Your task to perform on an android device: Open Youtube and go to the subscriptions tab Image 0: 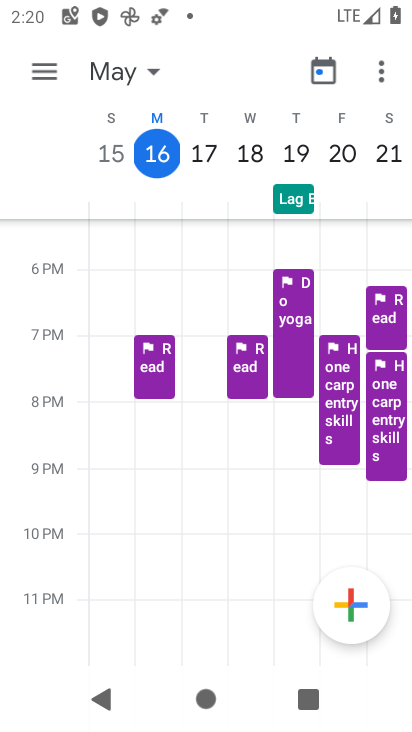
Step 0: press home button
Your task to perform on an android device: Open Youtube and go to the subscriptions tab Image 1: 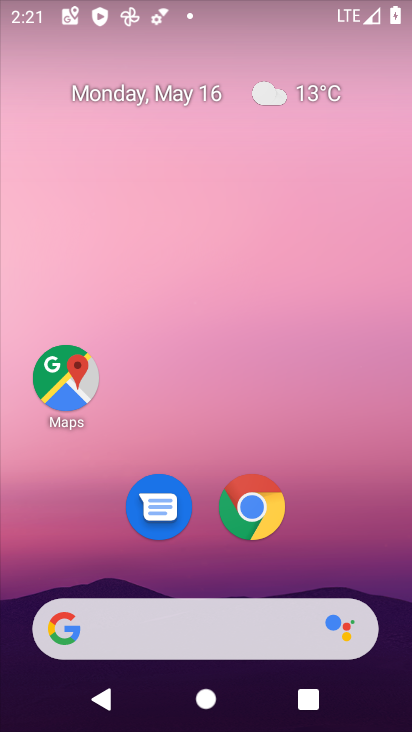
Step 1: drag from (265, 564) to (208, 97)
Your task to perform on an android device: Open Youtube and go to the subscriptions tab Image 2: 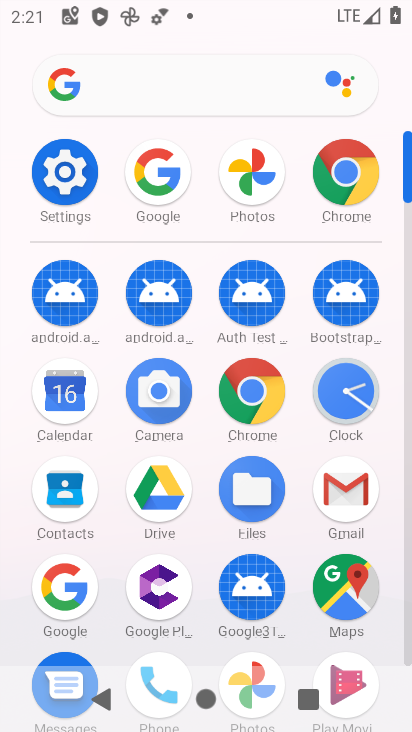
Step 2: drag from (204, 629) to (215, 263)
Your task to perform on an android device: Open Youtube and go to the subscriptions tab Image 3: 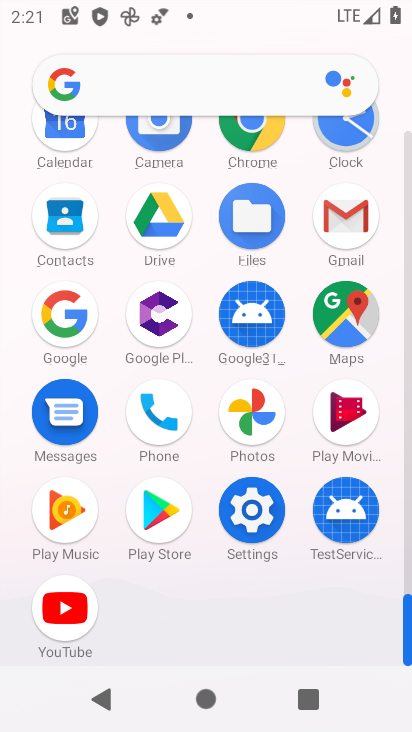
Step 3: click (79, 607)
Your task to perform on an android device: Open Youtube and go to the subscriptions tab Image 4: 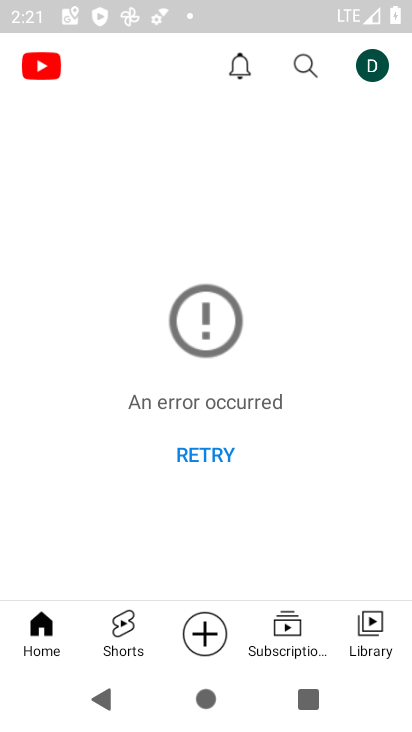
Step 4: click (294, 638)
Your task to perform on an android device: Open Youtube and go to the subscriptions tab Image 5: 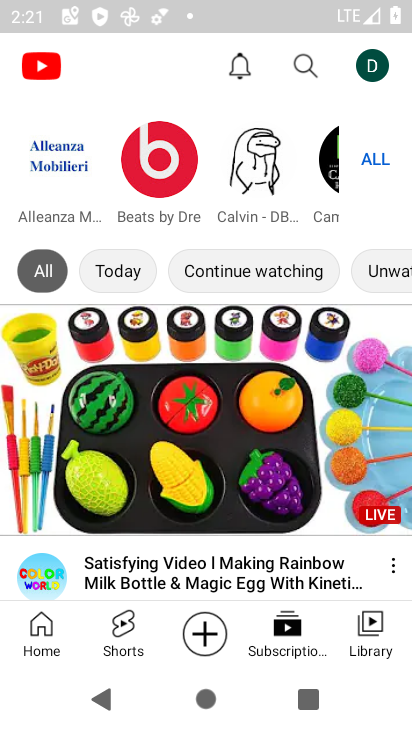
Step 5: task complete